Your task to perform on an android device: Open Amazon Image 0: 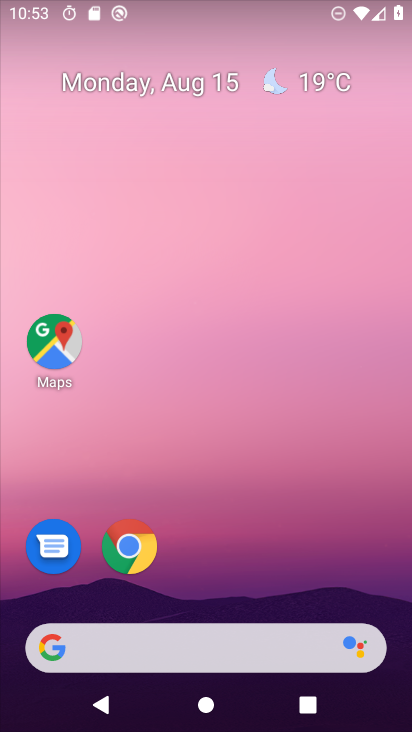
Step 0: drag from (224, 616) to (157, 68)
Your task to perform on an android device: Open Amazon Image 1: 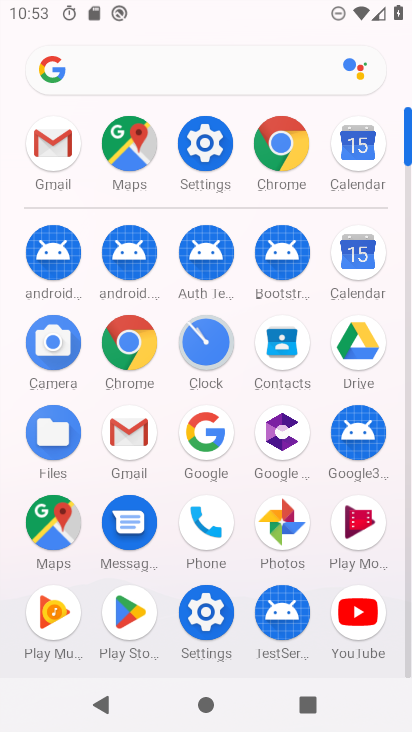
Step 1: click (128, 342)
Your task to perform on an android device: Open Amazon Image 2: 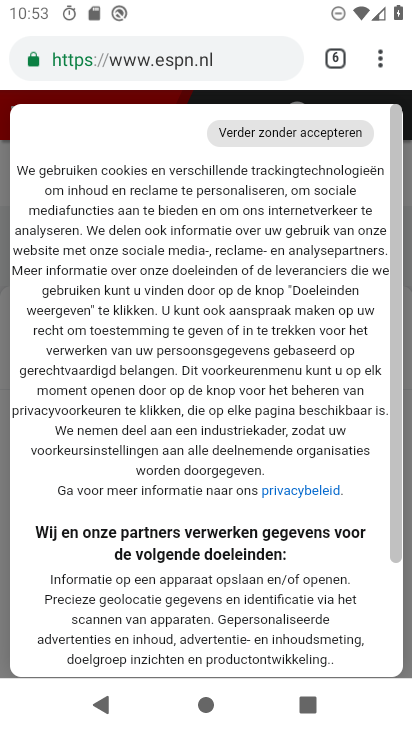
Step 2: drag from (379, 60) to (153, 119)
Your task to perform on an android device: Open Amazon Image 3: 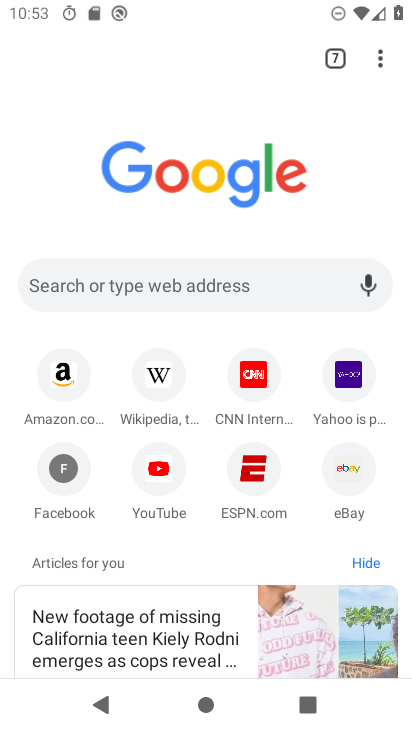
Step 3: click (64, 360)
Your task to perform on an android device: Open Amazon Image 4: 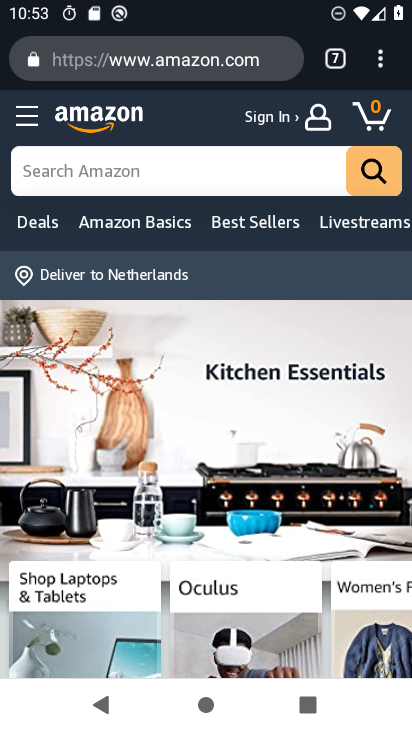
Step 4: task complete